Your task to perform on an android device: Search for Italian restaurants on Maps Image 0: 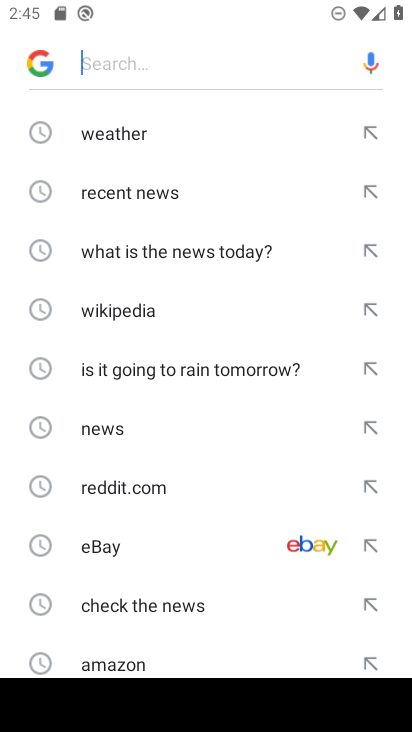
Step 0: press home button
Your task to perform on an android device: Search for Italian restaurants on Maps Image 1: 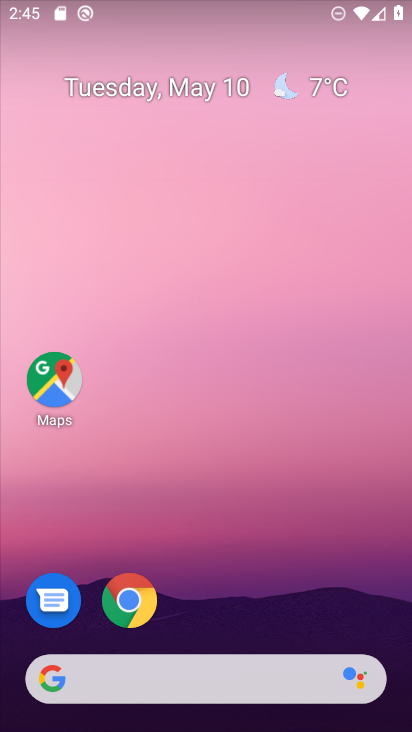
Step 1: click (65, 373)
Your task to perform on an android device: Search for Italian restaurants on Maps Image 2: 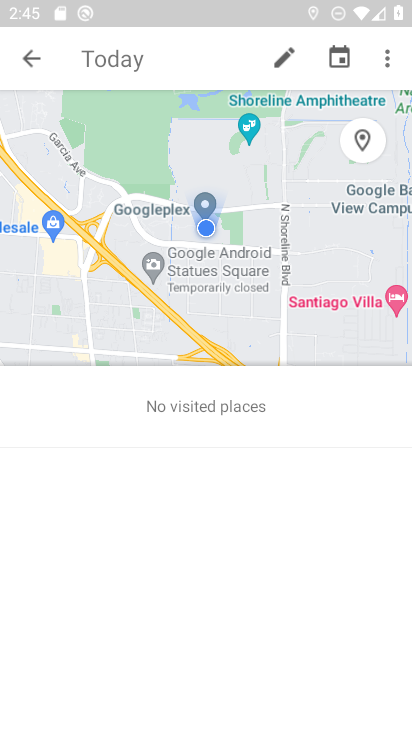
Step 2: click (24, 47)
Your task to perform on an android device: Search for Italian restaurants on Maps Image 3: 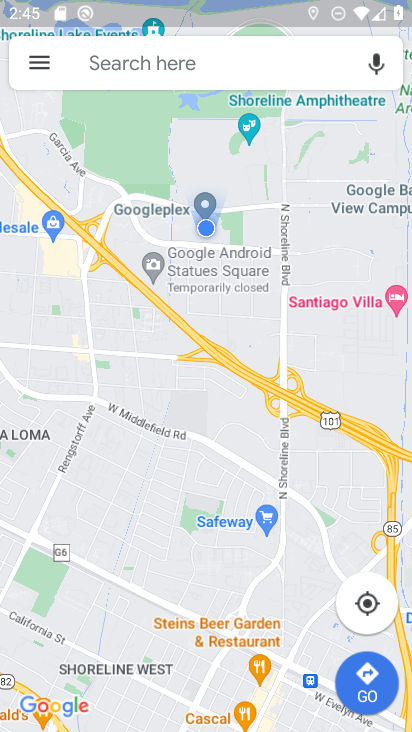
Step 3: click (171, 61)
Your task to perform on an android device: Search for Italian restaurants on Maps Image 4: 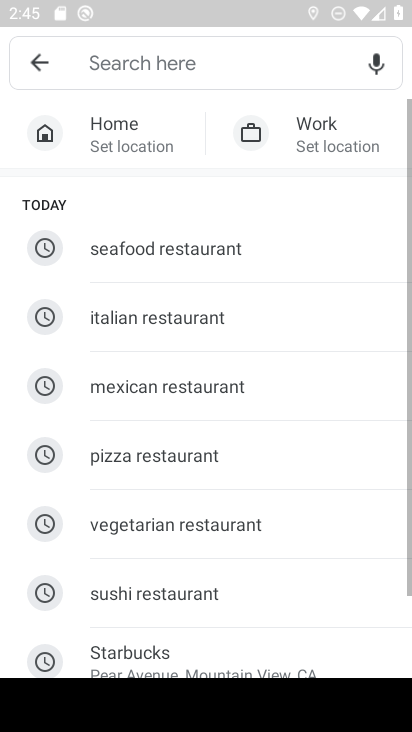
Step 4: click (237, 304)
Your task to perform on an android device: Search for Italian restaurants on Maps Image 5: 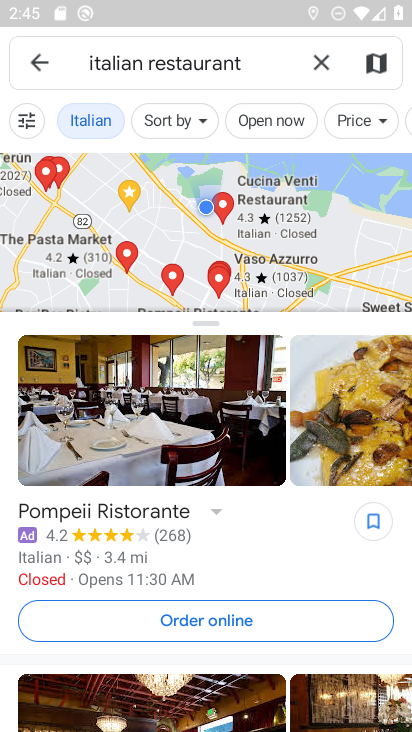
Step 5: task complete